Your task to perform on an android device: open the mobile data screen to see how much data has been used Image 0: 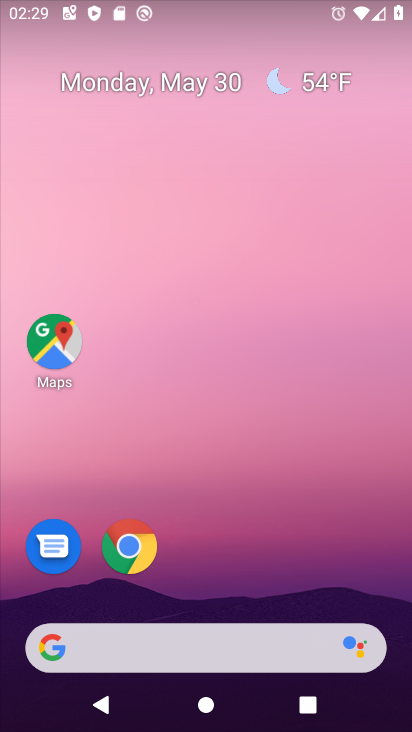
Step 0: press home button
Your task to perform on an android device: open the mobile data screen to see how much data has been used Image 1: 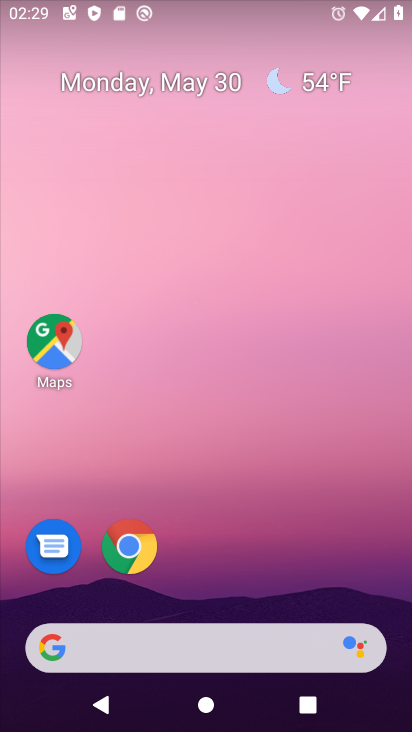
Step 1: drag from (234, 592) to (261, 144)
Your task to perform on an android device: open the mobile data screen to see how much data has been used Image 2: 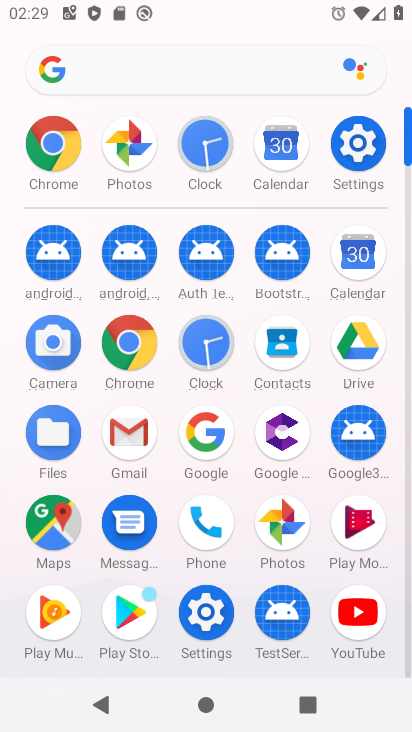
Step 2: click (365, 133)
Your task to perform on an android device: open the mobile data screen to see how much data has been used Image 3: 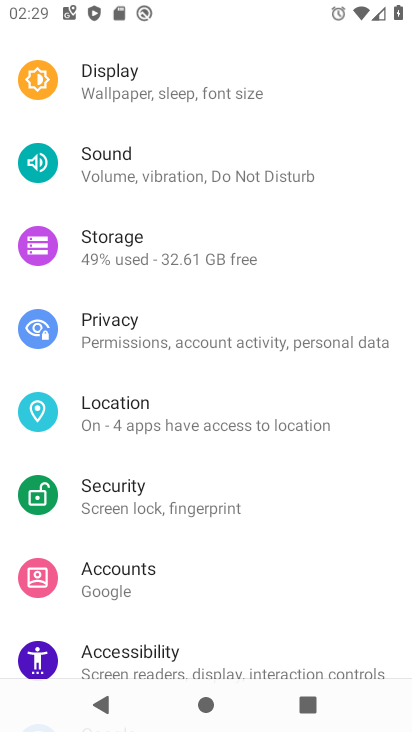
Step 3: drag from (200, 120) to (192, 726)
Your task to perform on an android device: open the mobile data screen to see how much data has been used Image 4: 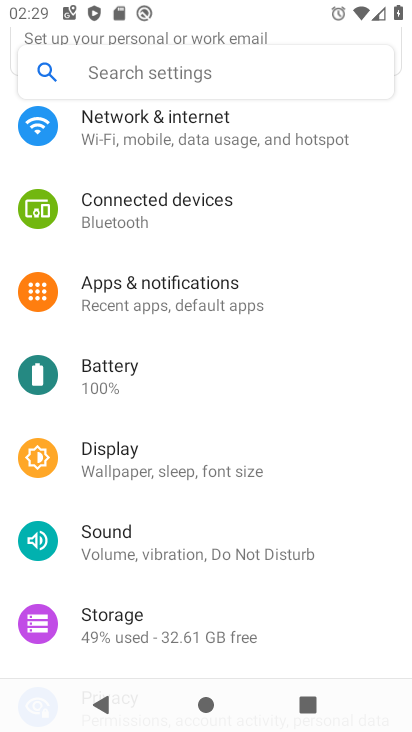
Step 4: click (199, 115)
Your task to perform on an android device: open the mobile data screen to see how much data has been used Image 5: 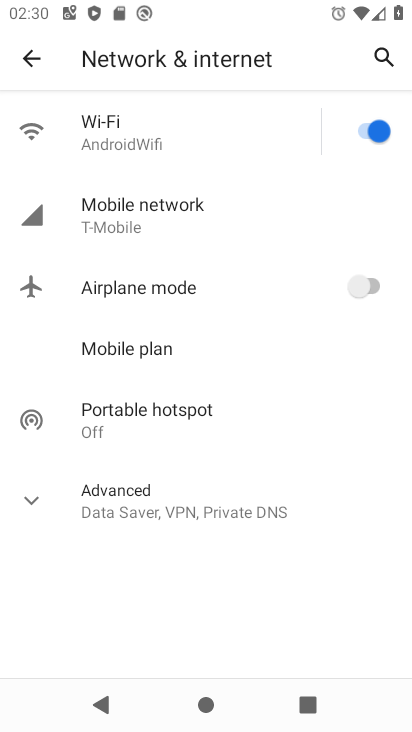
Step 5: click (190, 218)
Your task to perform on an android device: open the mobile data screen to see how much data has been used Image 6: 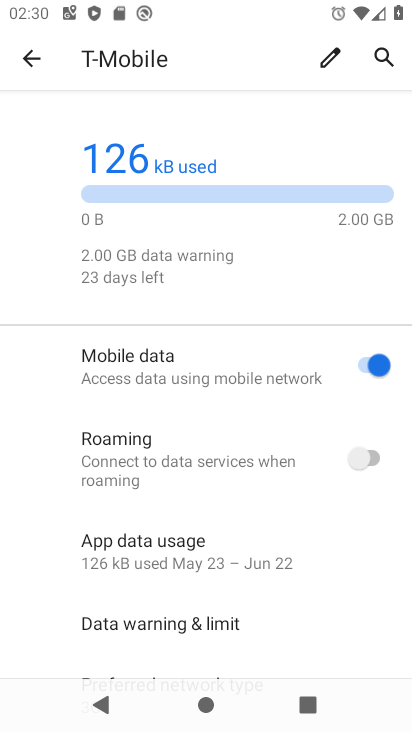
Step 6: click (239, 544)
Your task to perform on an android device: open the mobile data screen to see how much data has been used Image 7: 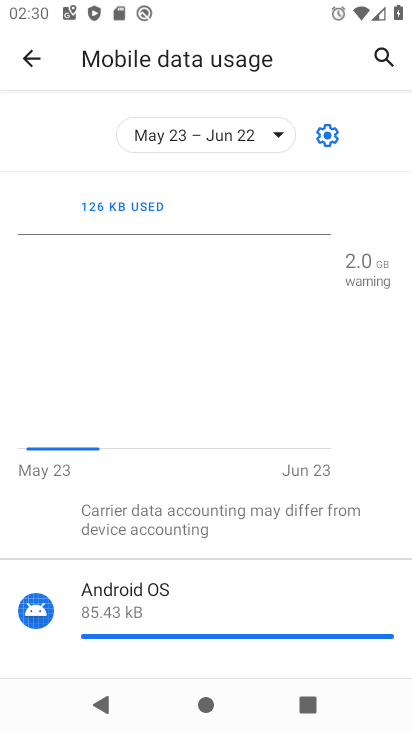
Step 7: task complete